Your task to perform on an android device: What's the weather? Image 0: 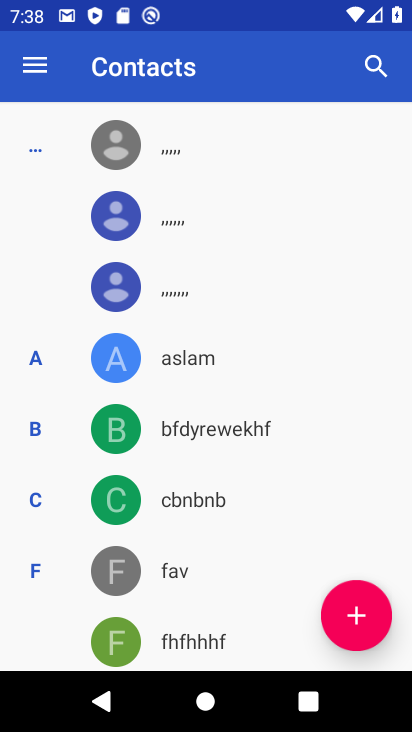
Step 0: press home button
Your task to perform on an android device: What's the weather? Image 1: 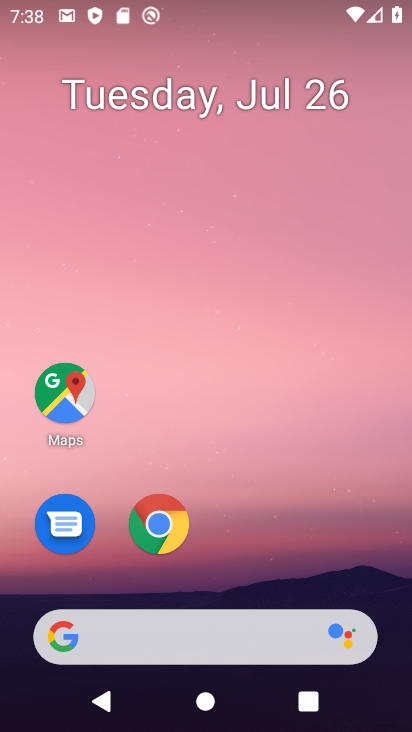
Step 1: click (200, 659)
Your task to perform on an android device: What's the weather? Image 2: 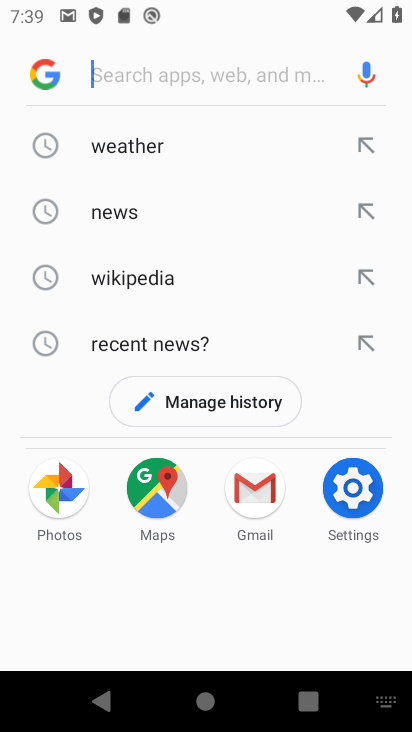
Step 2: click (147, 140)
Your task to perform on an android device: What's the weather? Image 3: 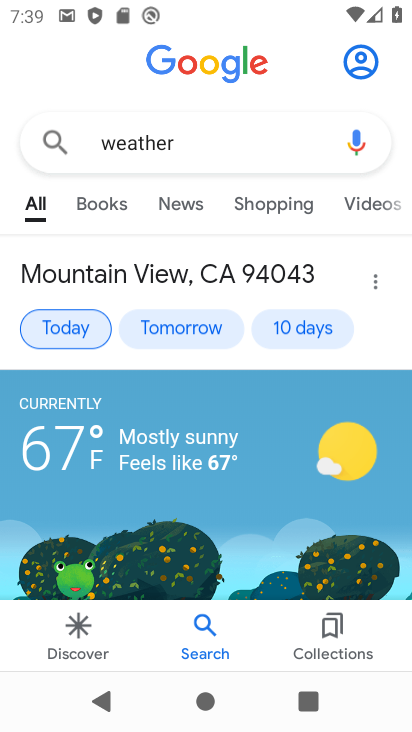
Step 3: click (79, 324)
Your task to perform on an android device: What's the weather? Image 4: 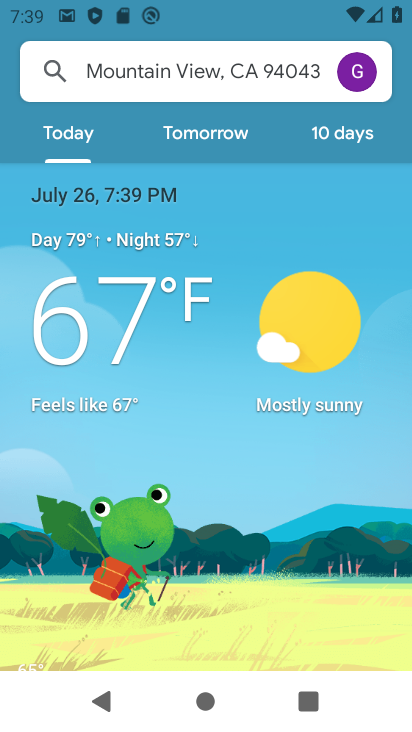
Step 4: task complete